Your task to perform on an android device: check android version Image 0: 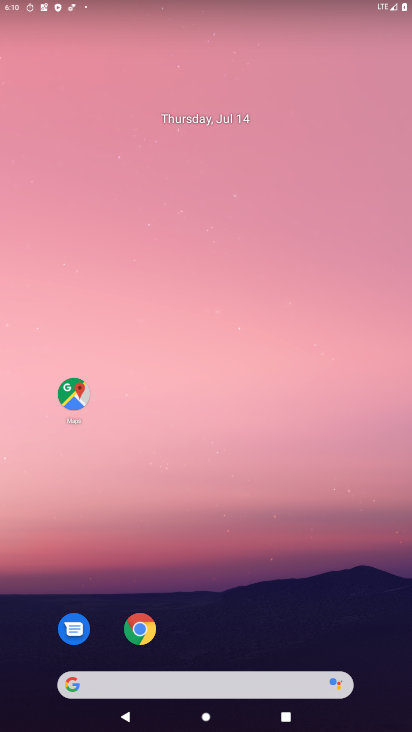
Step 0: drag from (242, 592) to (214, 132)
Your task to perform on an android device: check android version Image 1: 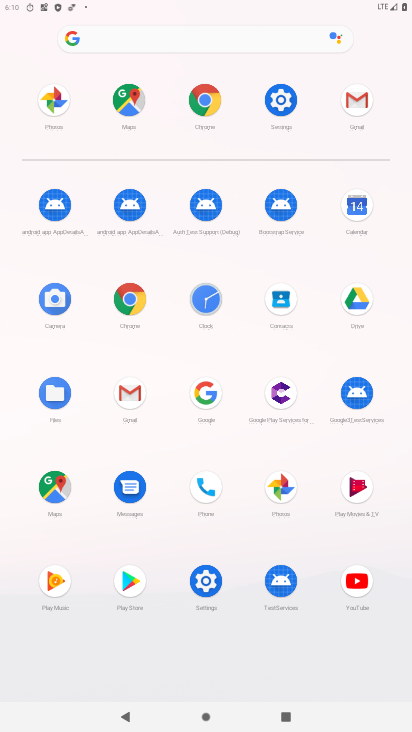
Step 1: click (122, 315)
Your task to perform on an android device: check android version Image 2: 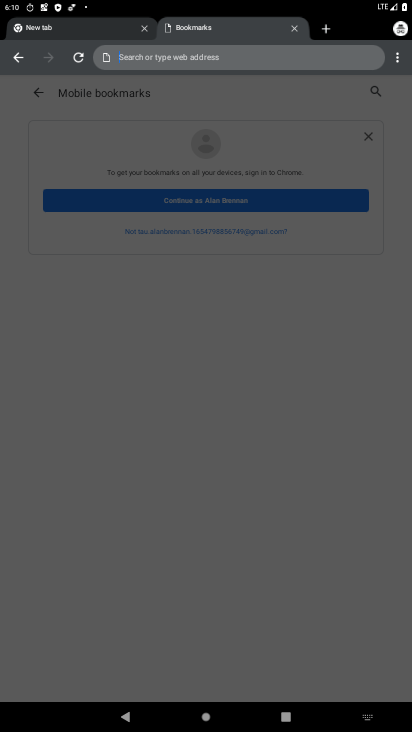
Step 2: click (392, 53)
Your task to perform on an android device: check android version Image 3: 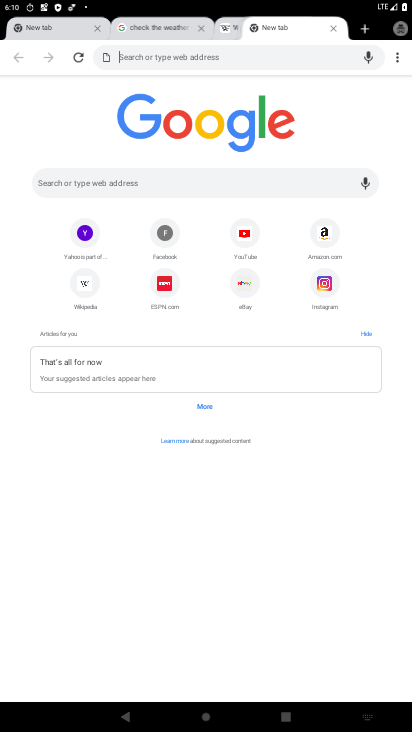
Step 3: click (400, 57)
Your task to perform on an android device: check android version Image 4: 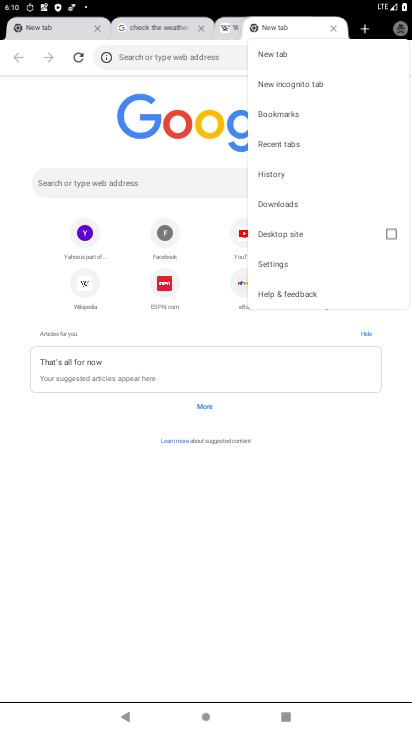
Step 4: click (319, 291)
Your task to perform on an android device: check android version Image 5: 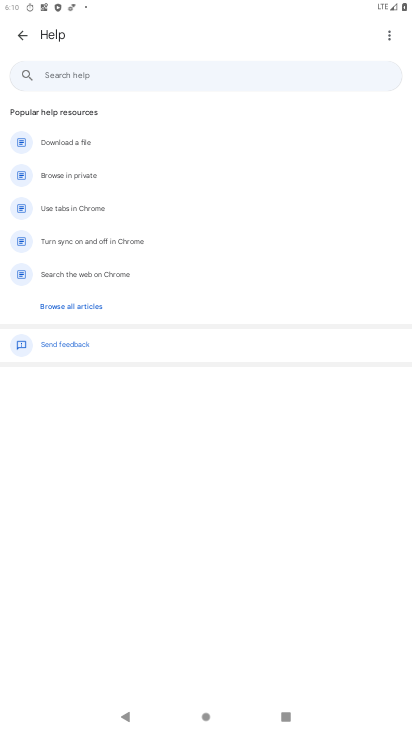
Step 5: click (393, 30)
Your task to perform on an android device: check android version Image 6: 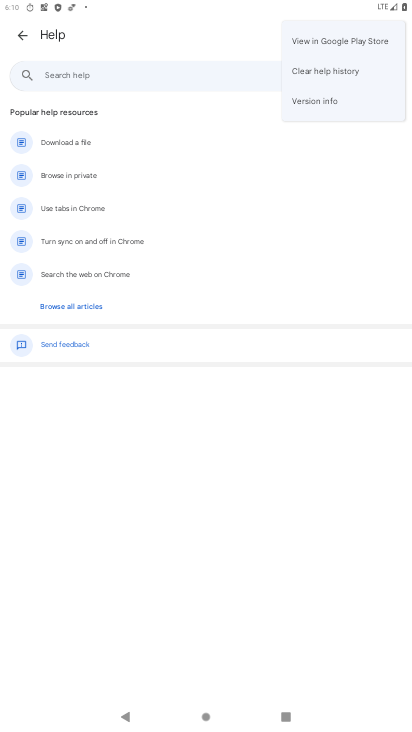
Step 6: click (318, 100)
Your task to perform on an android device: check android version Image 7: 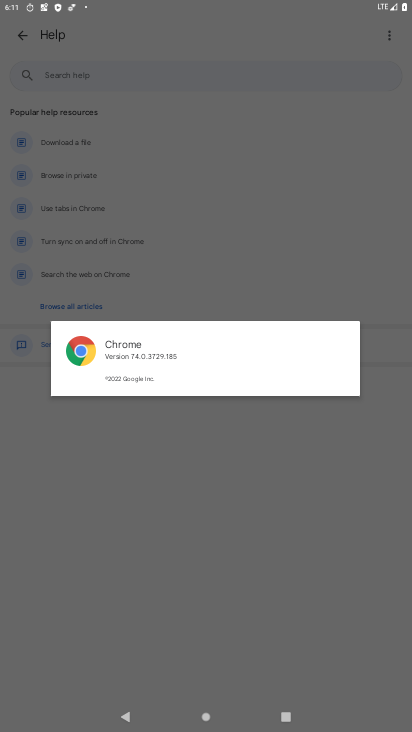
Step 7: task complete